Your task to perform on an android device: delete the emails in spam in the gmail app Image 0: 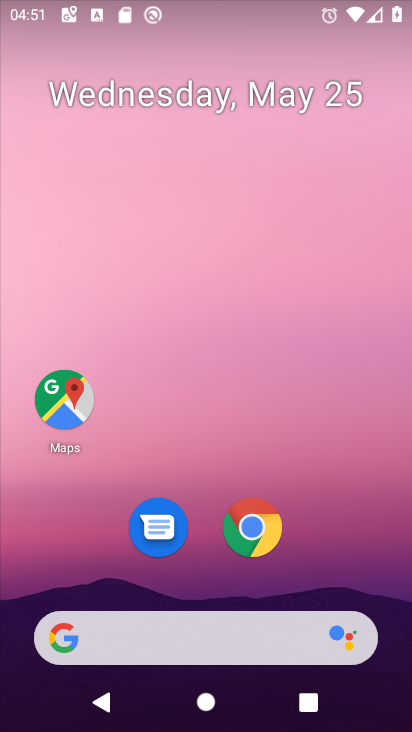
Step 0: drag from (201, 502) to (239, 13)
Your task to perform on an android device: delete the emails in spam in the gmail app Image 1: 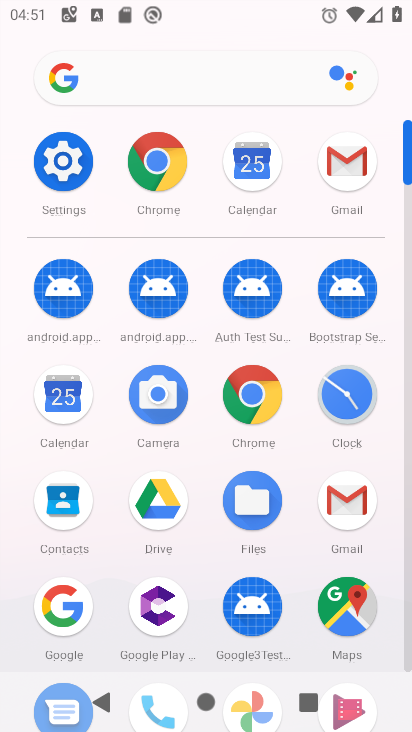
Step 1: click (345, 500)
Your task to perform on an android device: delete the emails in spam in the gmail app Image 2: 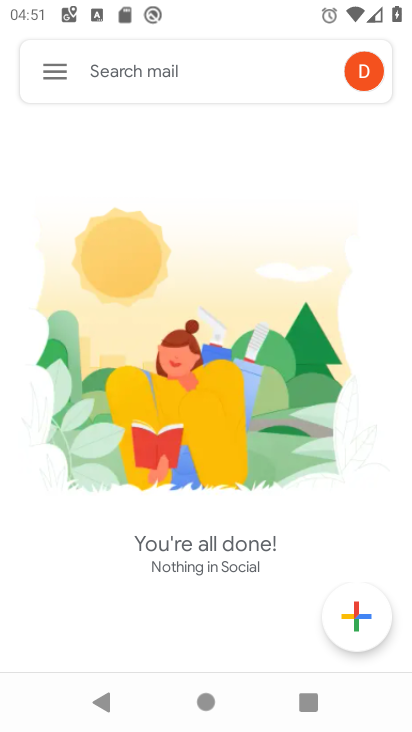
Step 2: click (51, 71)
Your task to perform on an android device: delete the emails in spam in the gmail app Image 3: 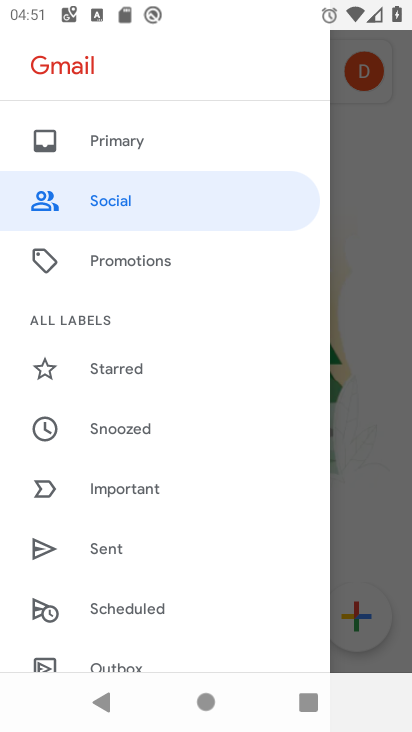
Step 3: drag from (199, 569) to (248, 260)
Your task to perform on an android device: delete the emails in spam in the gmail app Image 4: 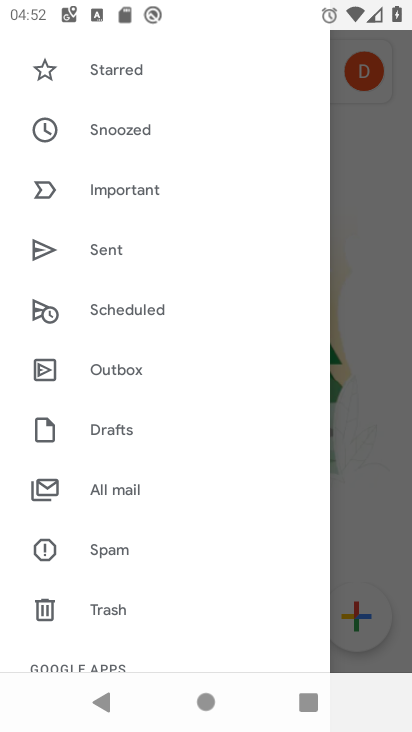
Step 4: click (113, 548)
Your task to perform on an android device: delete the emails in spam in the gmail app Image 5: 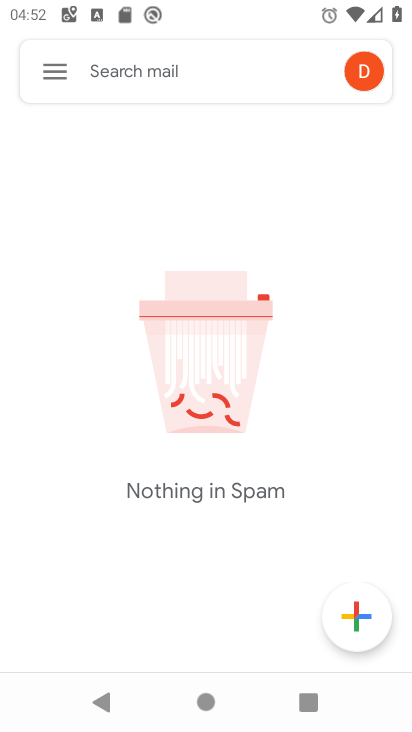
Step 5: task complete